Your task to perform on an android device: find snoozed emails in the gmail app Image 0: 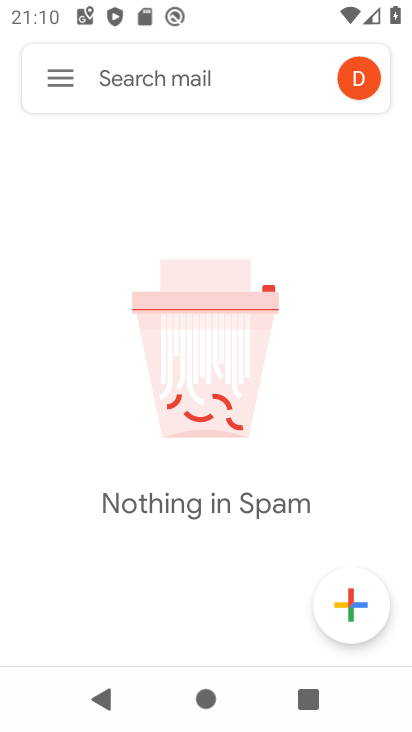
Step 0: press home button
Your task to perform on an android device: find snoozed emails in the gmail app Image 1: 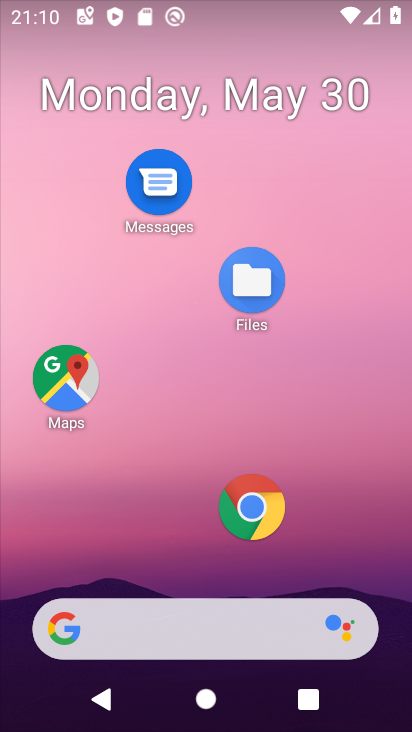
Step 1: drag from (181, 571) to (191, 162)
Your task to perform on an android device: find snoozed emails in the gmail app Image 2: 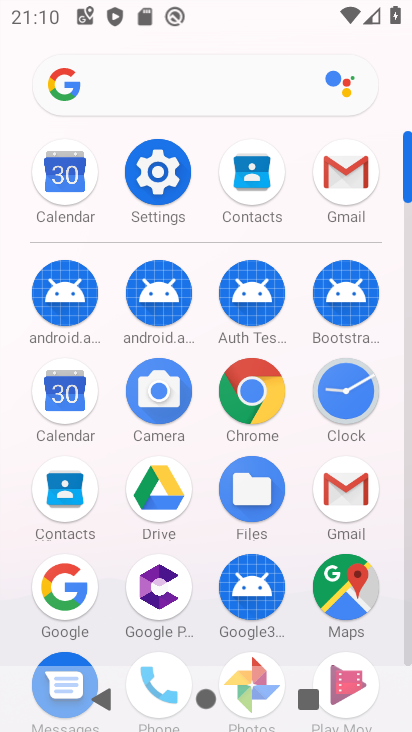
Step 2: click (360, 490)
Your task to perform on an android device: find snoozed emails in the gmail app Image 3: 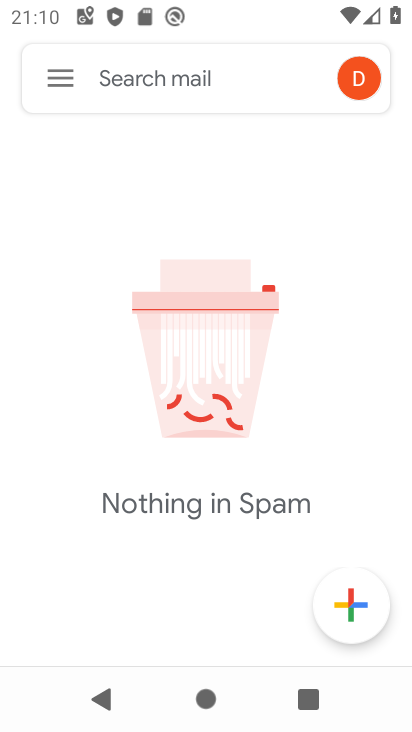
Step 3: click (66, 75)
Your task to perform on an android device: find snoozed emails in the gmail app Image 4: 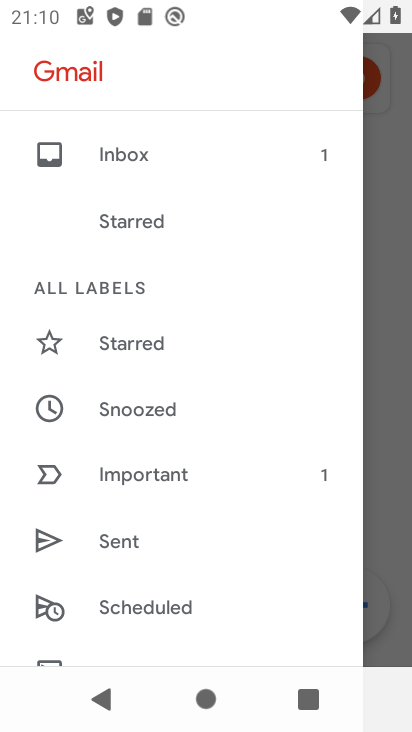
Step 4: drag from (149, 558) to (186, 363)
Your task to perform on an android device: find snoozed emails in the gmail app Image 5: 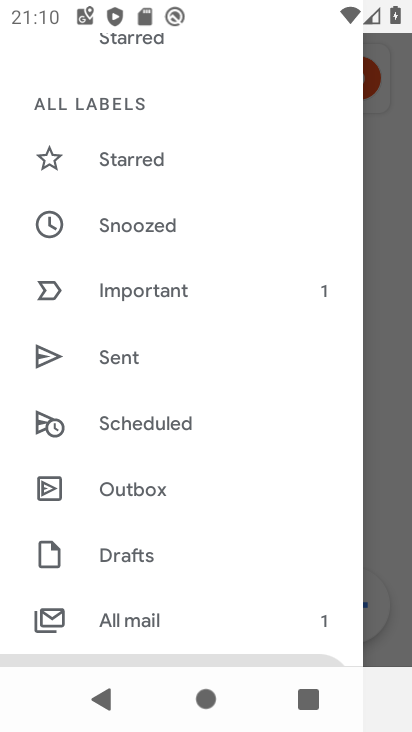
Step 5: drag from (107, 596) to (99, 631)
Your task to perform on an android device: find snoozed emails in the gmail app Image 6: 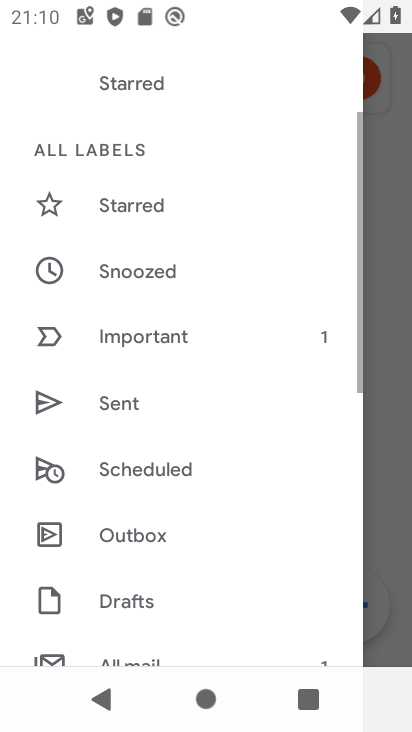
Step 6: click (131, 298)
Your task to perform on an android device: find snoozed emails in the gmail app Image 7: 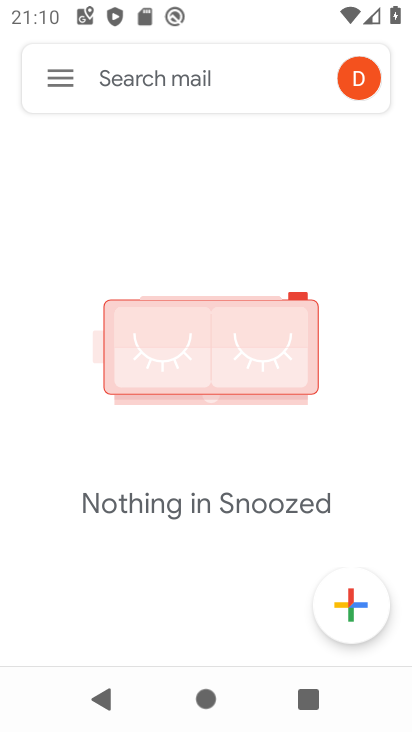
Step 7: task complete